Your task to perform on an android device: Go to ESPN.com Image 0: 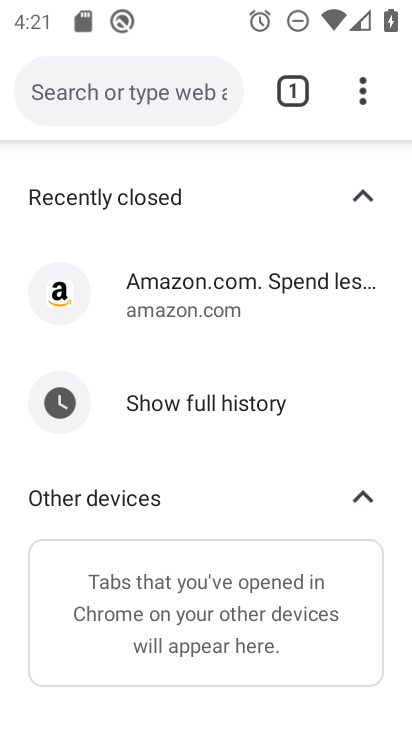
Step 0: press home button
Your task to perform on an android device: Go to ESPN.com Image 1: 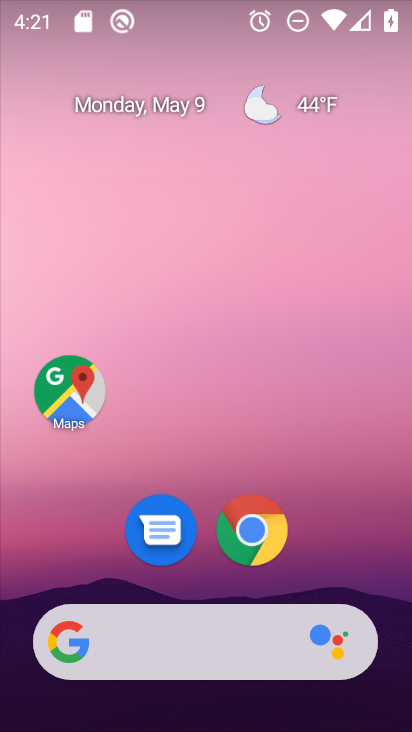
Step 1: click (245, 550)
Your task to perform on an android device: Go to ESPN.com Image 2: 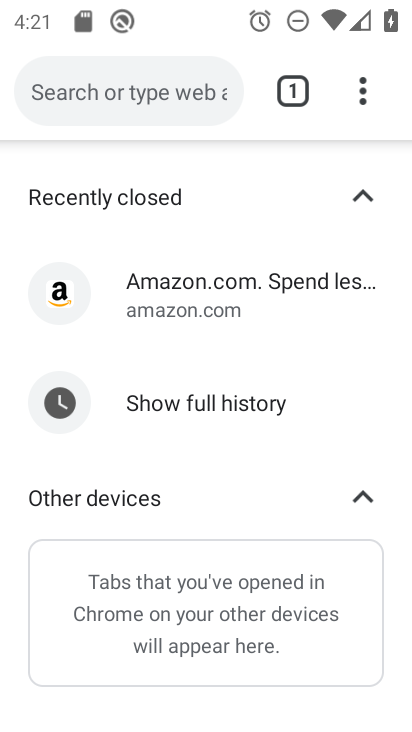
Step 2: click (285, 95)
Your task to perform on an android device: Go to ESPN.com Image 3: 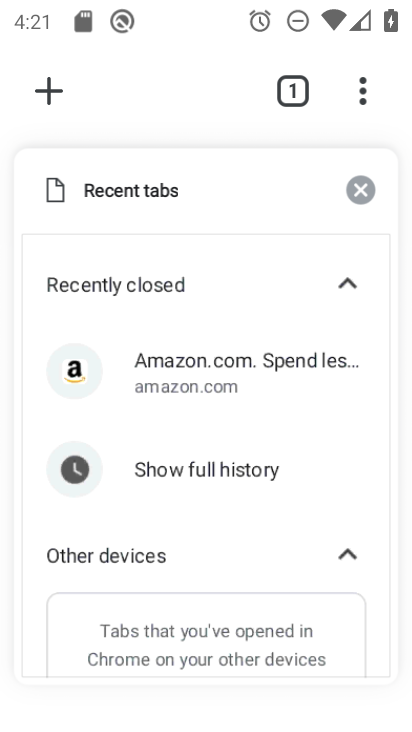
Step 3: click (55, 93)
Your task to perform on an android device: Go to ESPN.com Image 4: 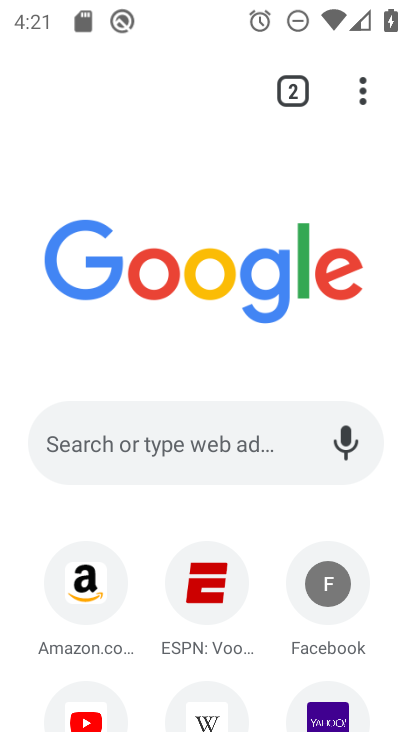
Step 4: click (203, 594)
Your task to perform on an android device: Go to ESPN.com Image 5: 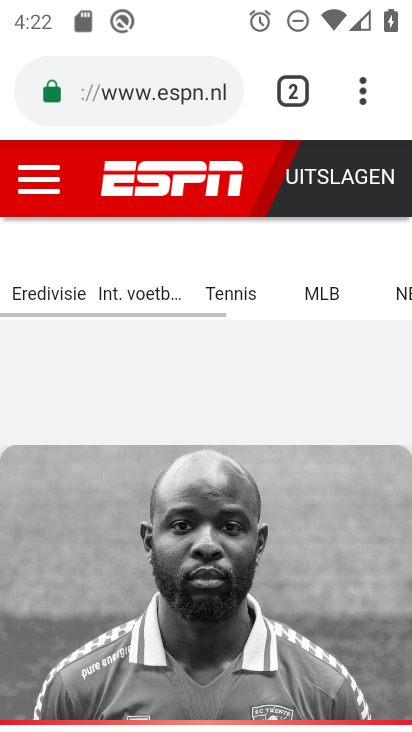
Step 5: drag from (217, 635) to (231, 329)
Your task to perform on an android device: Go to ESPN.com Image 6: 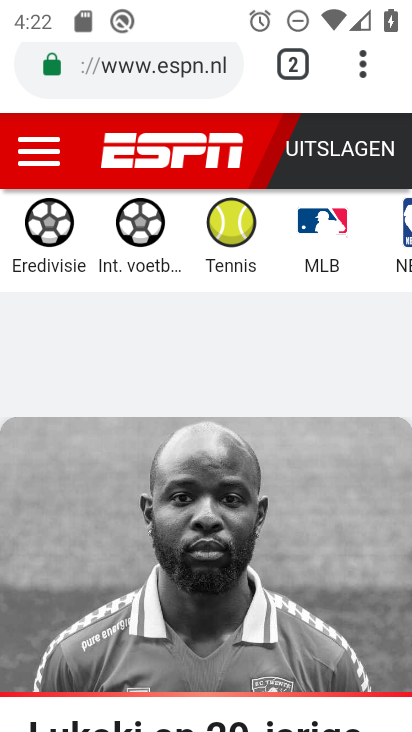
Step 6: drag from (237, 234) to (243, 196)
Your task to perform on an android device: Go to ESPN.com Image 7: 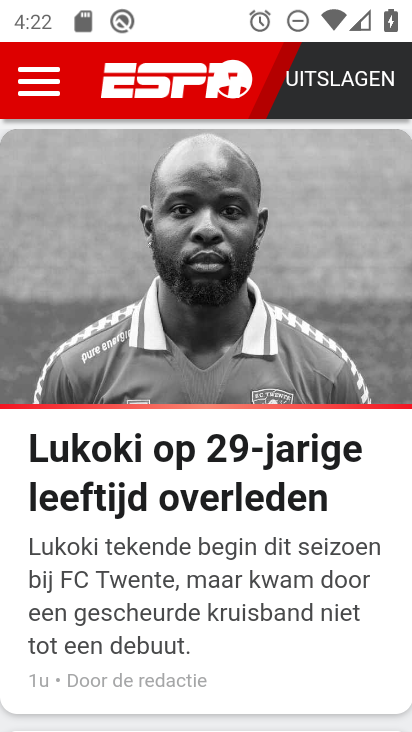
Step 7: drag from (220, 656) to (233, 421)
Your task to perform on an android device: Go to ESPN.com Image 8: 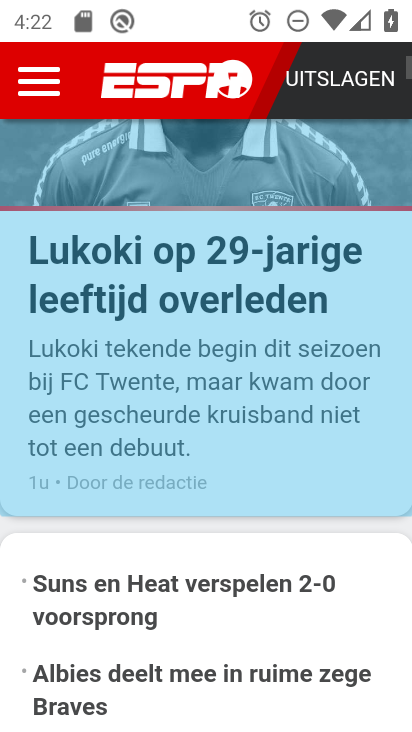
Step 8: click (239, 329)
Your task to perform on an android device: Go to ESPN.com Image 9: 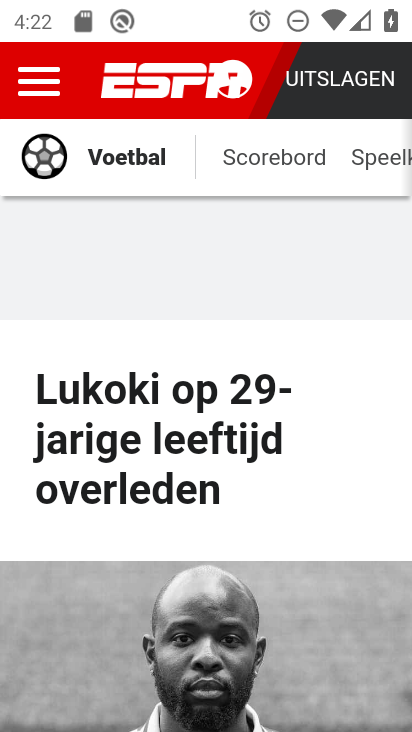
Step 9: task complete